Your task to perform on an android device: toggle show notifications on the lock screen Image 0: 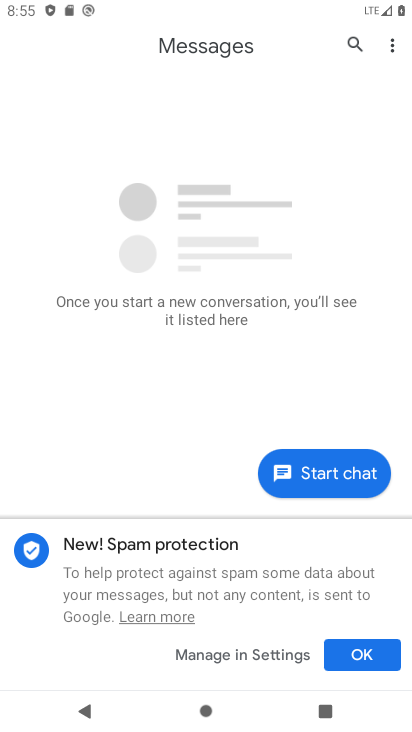
Step 0: press home button
Your task to perform on an android device: toggle show notifications on the lock screen Image 1: 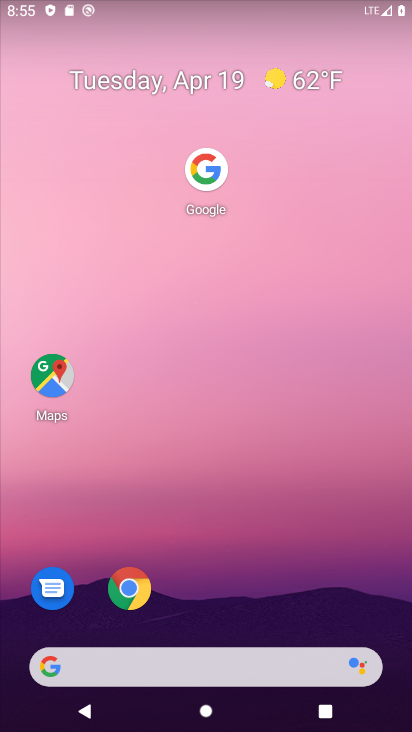
Step 1: drag from (231, 569) to (230, 33)
Your task to perform on an android device: toggle show notifications on the lock screen Image 2: 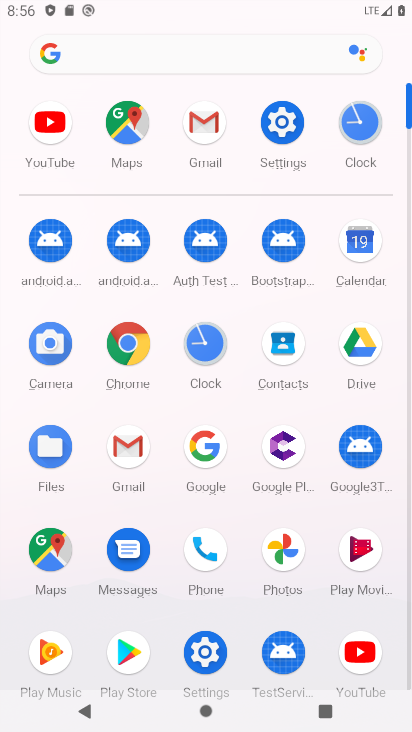
Step 2: click (281, 121)
Your task to perform on an android device: toggle show notifications on the lock screen Image 3: 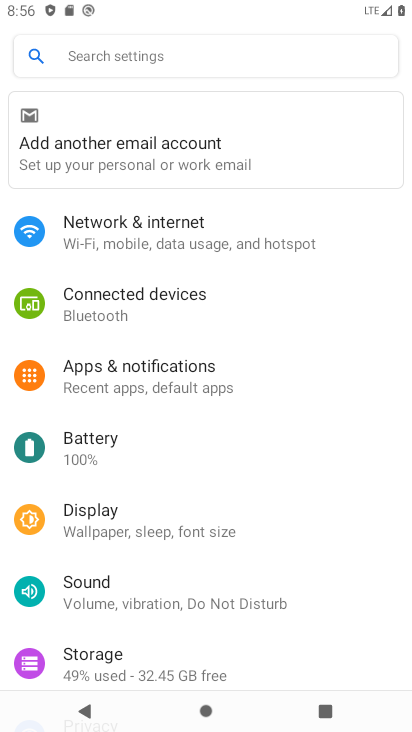
Step 3: click (170, 373)
Your task to perform on an android device: toggle show notifications on the lock screen Image 4: 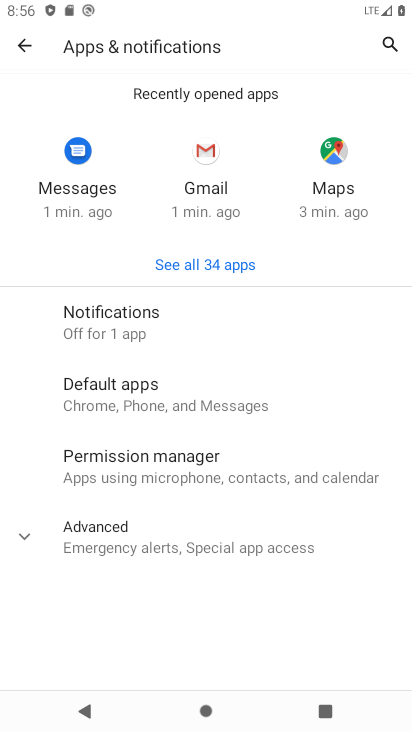
Step 4: click (135, 316)
Your task to perform on an android device: toggle show notifications on the lock screen Image 5: 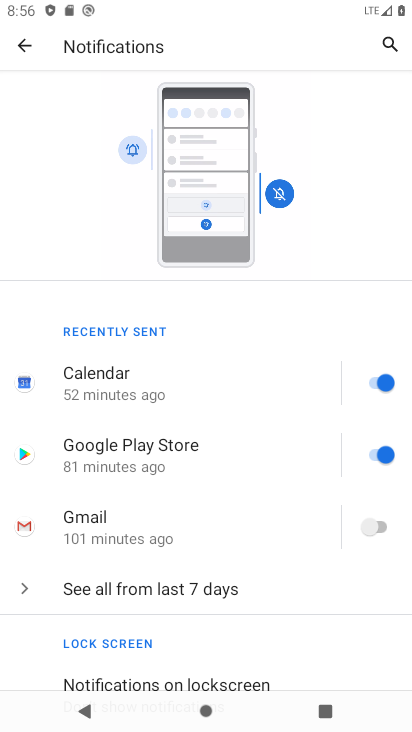
Step 5: drag from (215, 626) to (195, 319)
Your task to perform on an android device: toggle show notifications on the lock screen Image 6: 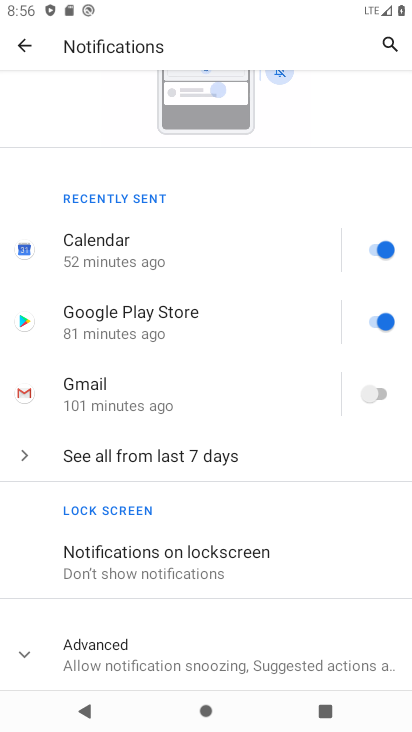
Step 6: click (190, 548)
Your task to perform on an android device: toggle show notifications on the lock screen Image 7: 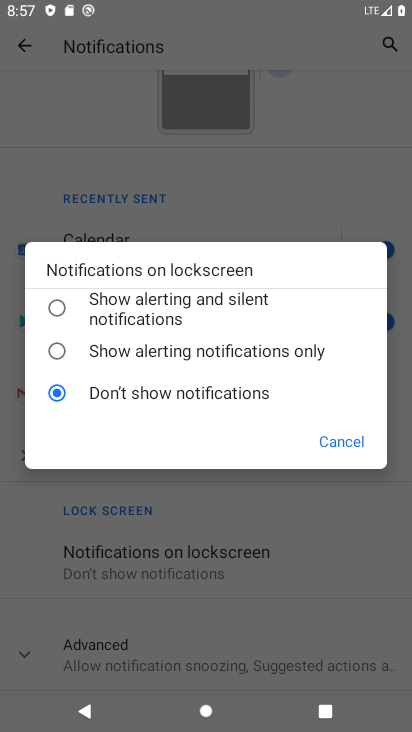
Step 7: click (55, 316)
Your task to perform on an android device: toggle show notifications on the lock screen Image 8: 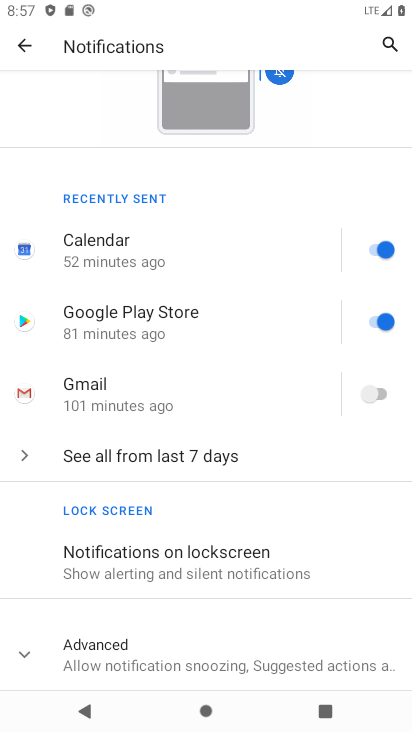
Step 8: task complete